Your task to perform on an android device: Go to privacy settings Image 0: 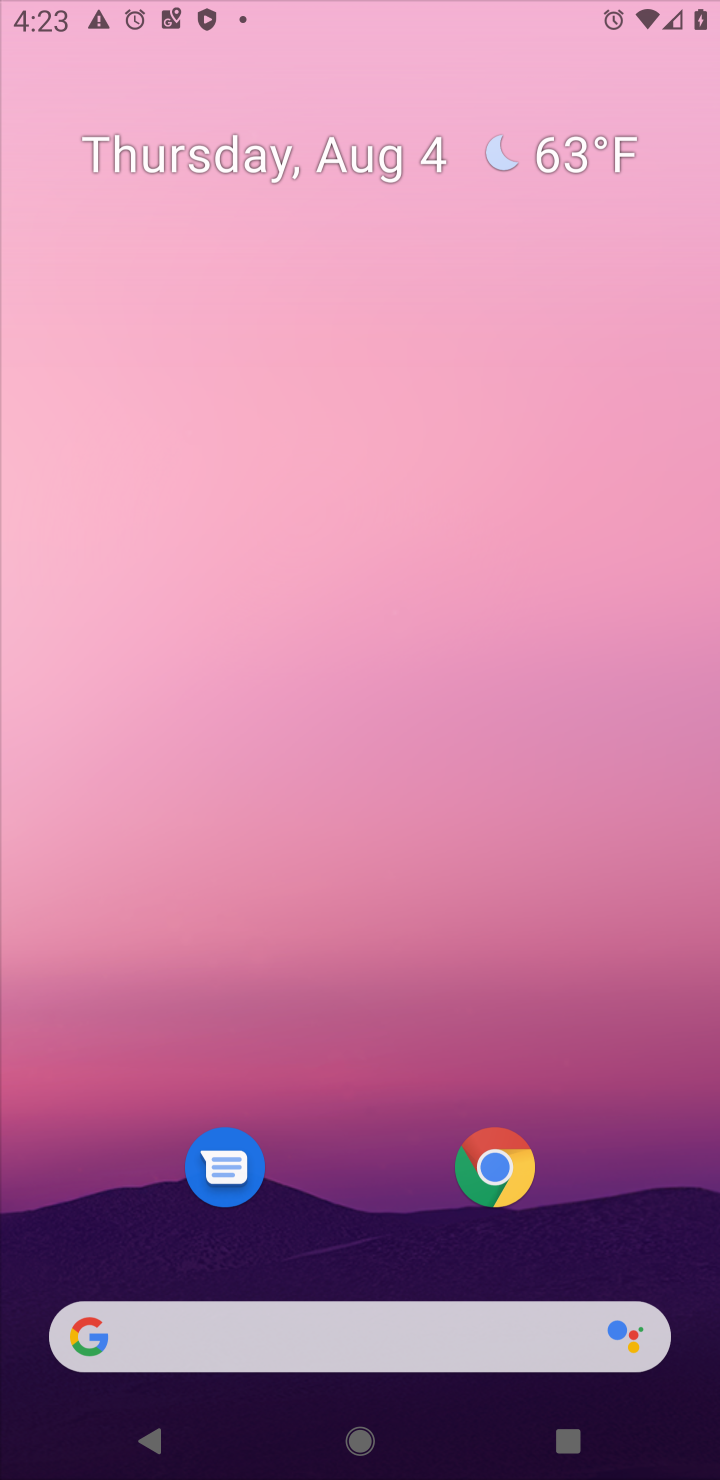
Step 0: press home button
Your task to perform on an android device: Go to privacy settings Image 1: 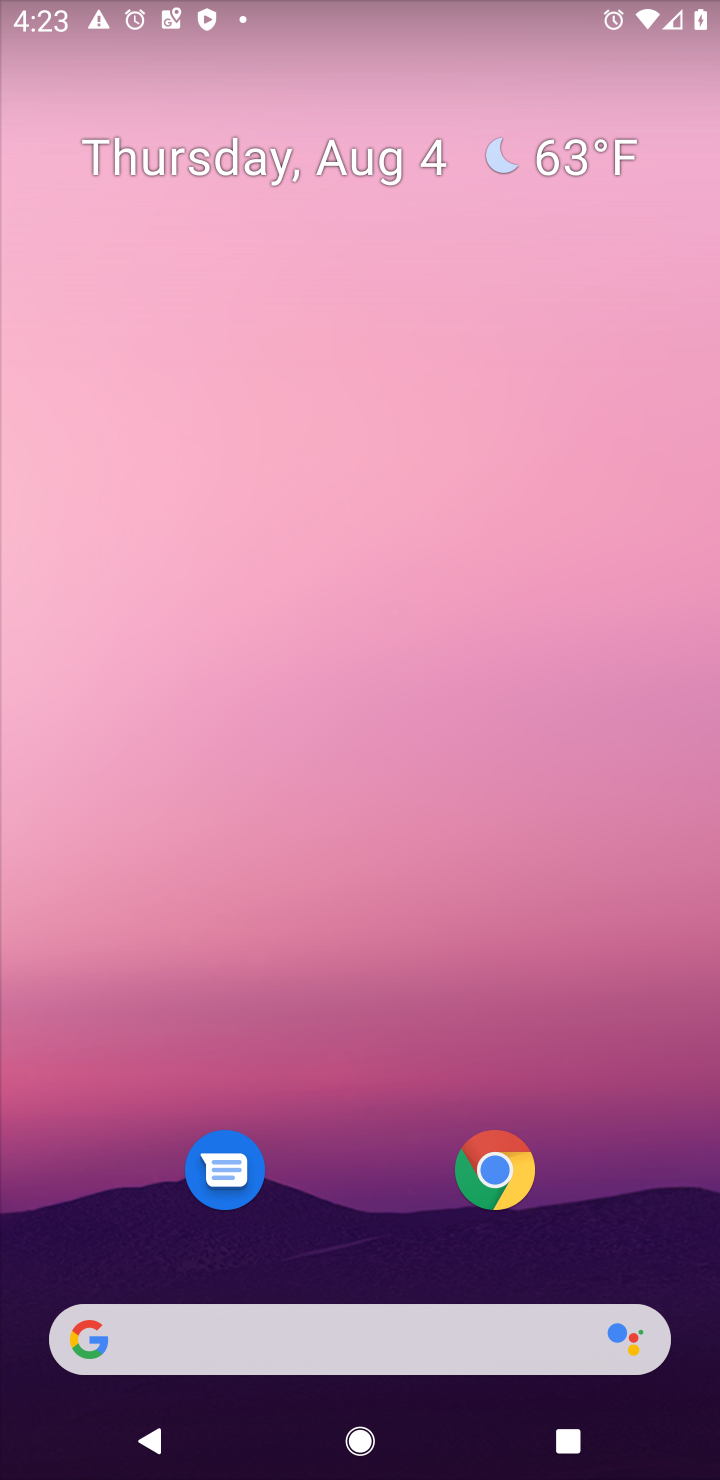
Step 1: drag from (617, 1252) to (524, 95)
Your task to perform on an android device: Go to privacy settings Image 2: 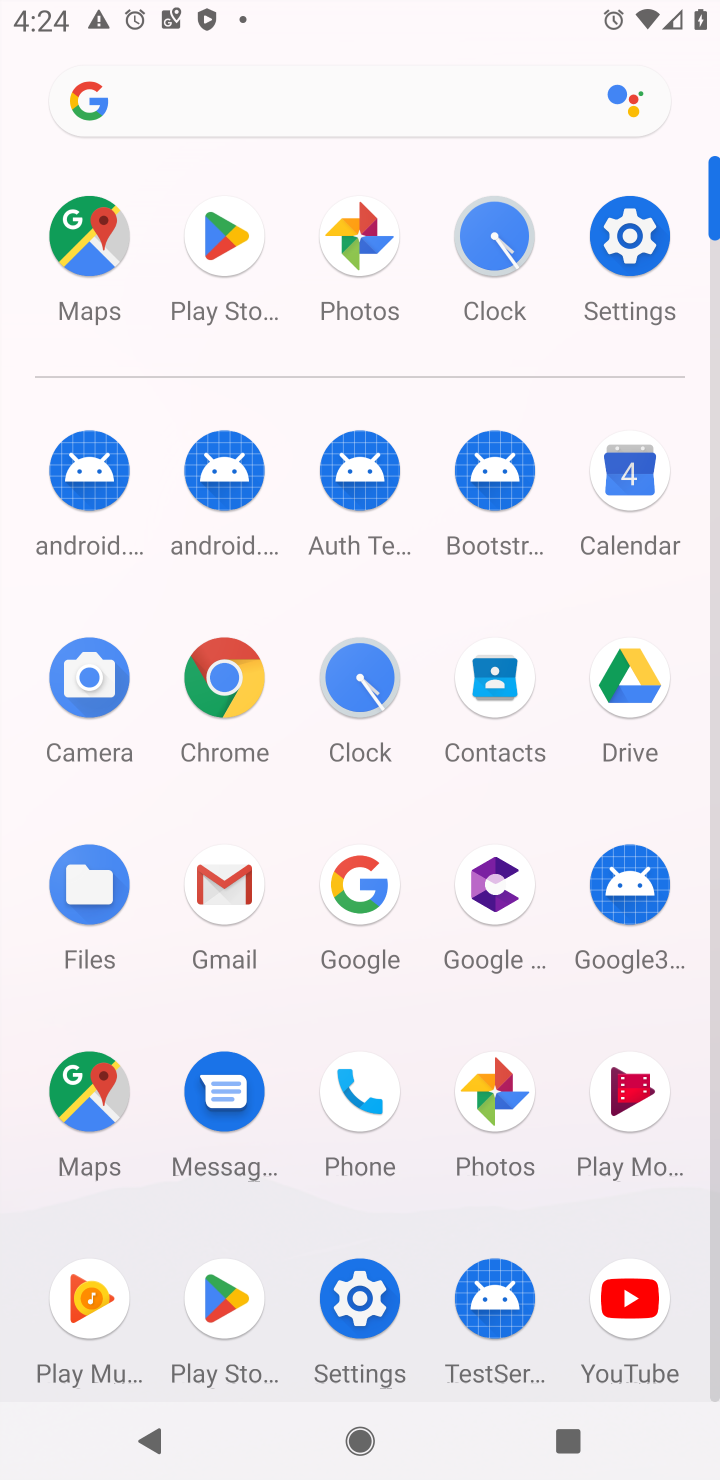
Step 2: click (363, 1293)
Your task to perform on an android device: Go to privacy settings Image 3: 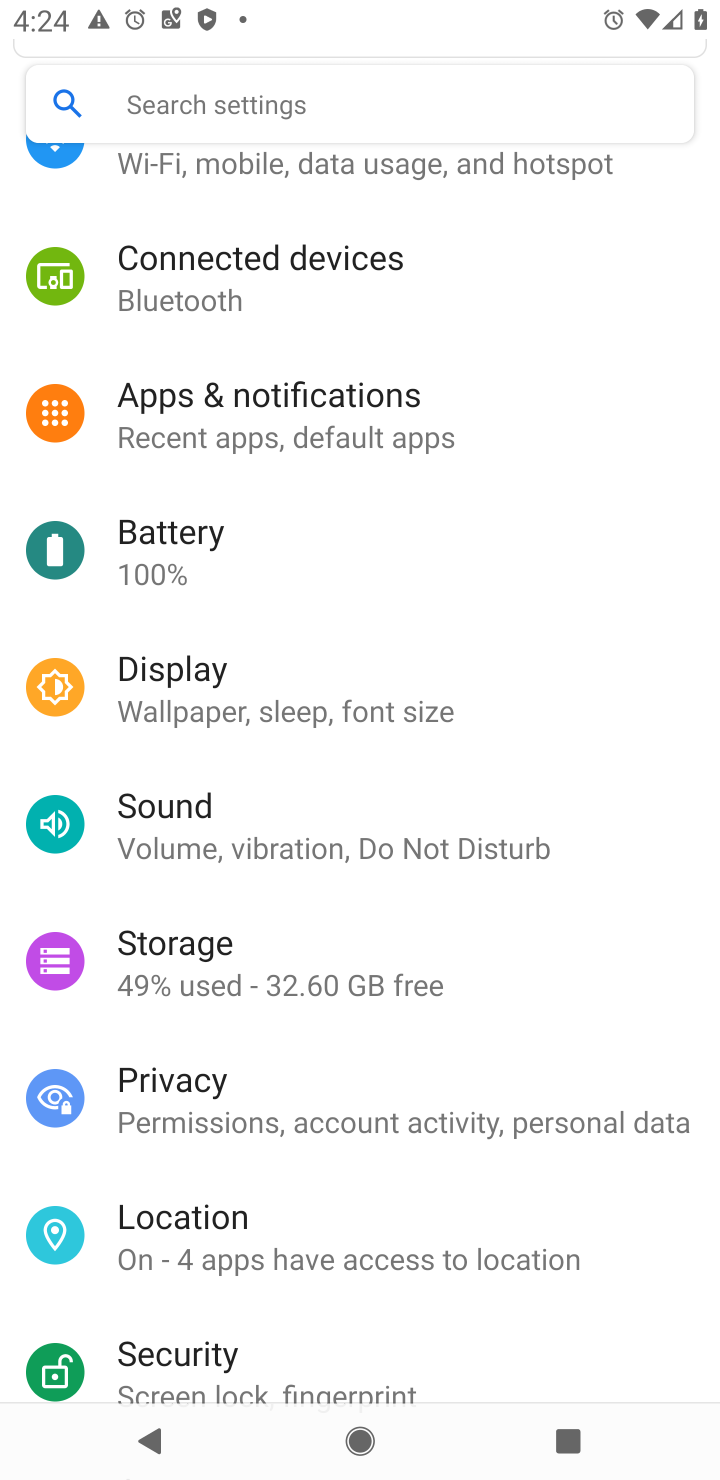
Step 3: click (156, 1123)
Your task to perform on an android device: Go to privacy settings Image 4: 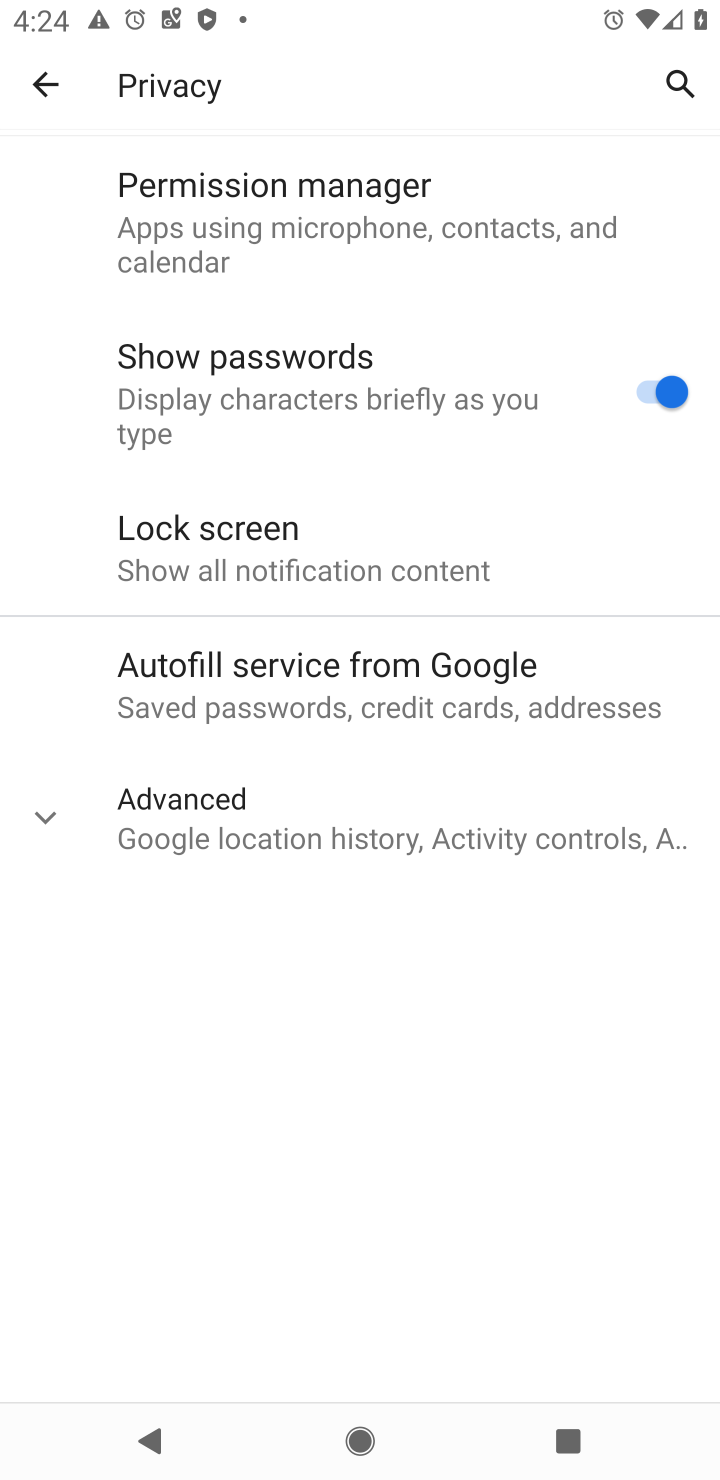
Step 4: click (36, 828)
Your task to perform on an android device: Go to privacy settings Image 5: 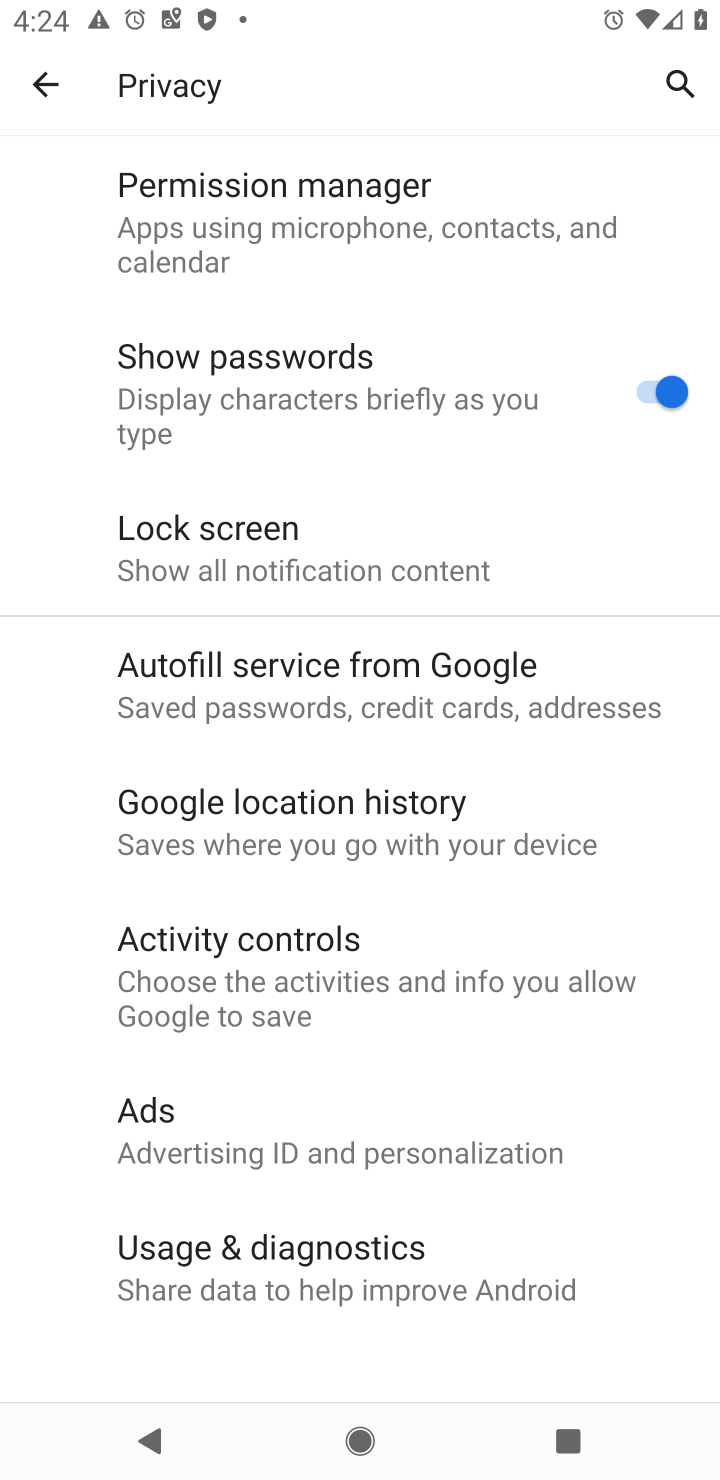
Step 5: task complete